Your task to perform on an android device: Go to settings Image 0: 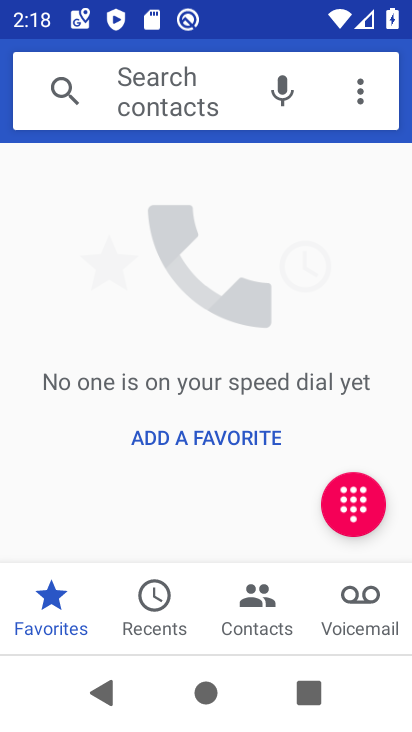
Step 0: press home button
Your task to perform on an android device: Go to settings Image 1: 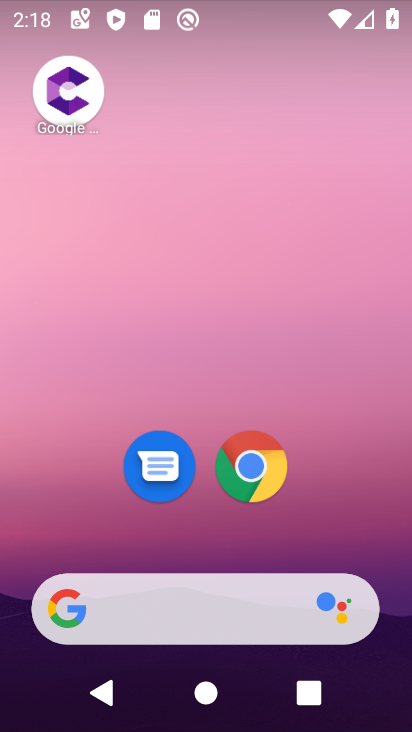
Step 1: drag from (350, 552) to (181, 69)
Your task to perform on an android device: Go to settings Image 2: 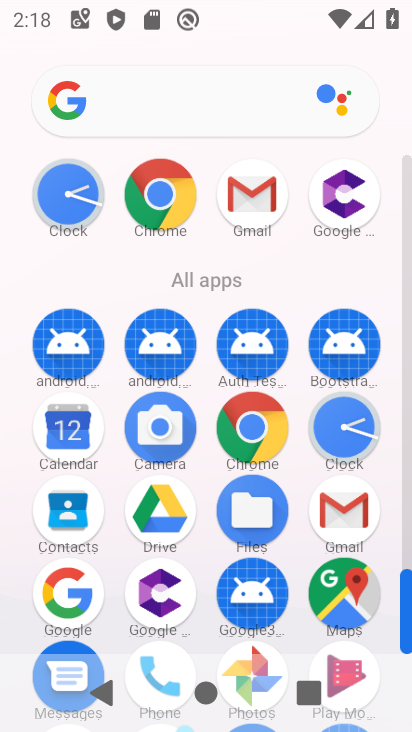
Step 2: drag from (207, 657) to (204, 276)
Your task to perform on an android device: Go to settings Image 3: 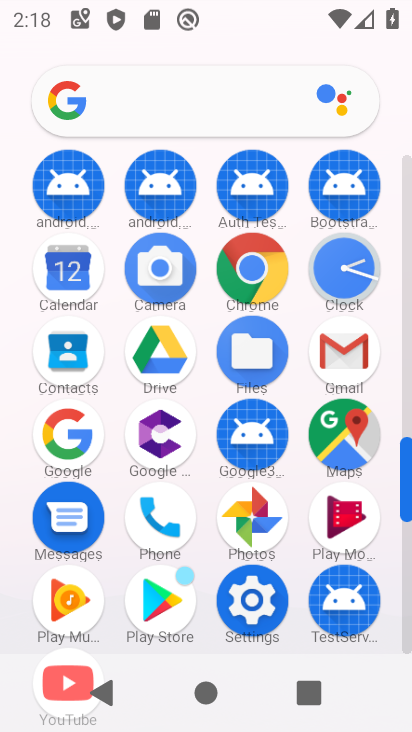
Step 3: click (262, 609)
Your task to perform on an android device: Go to settings Image 4: 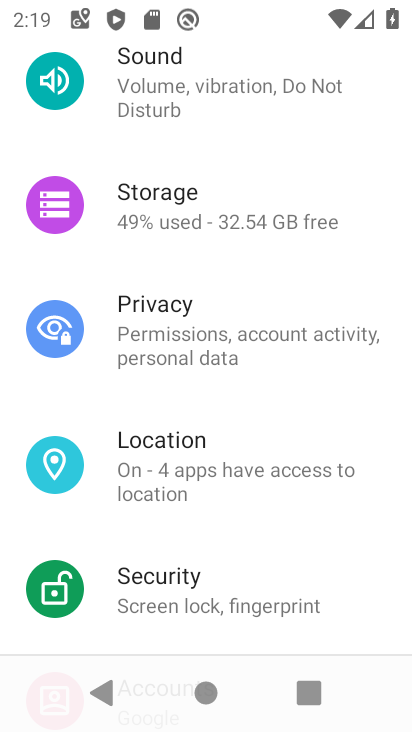
Step 4: task complete